Your task to perform on an android device: Open ESPN.com Image 0: 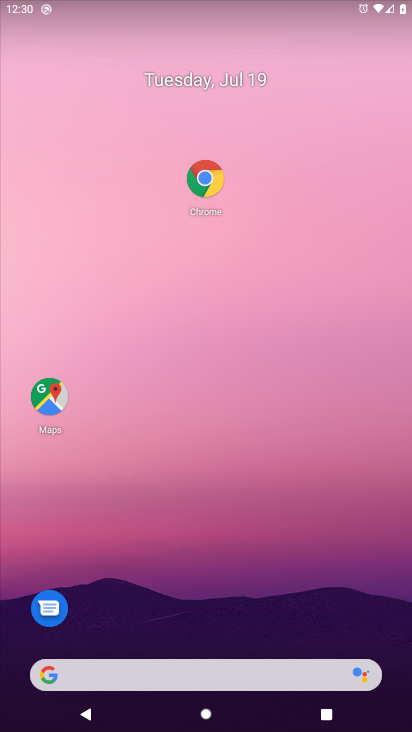
Step 0: click (114, 666)
Your task to perform on an android device: Open ESPN.com Image 1: 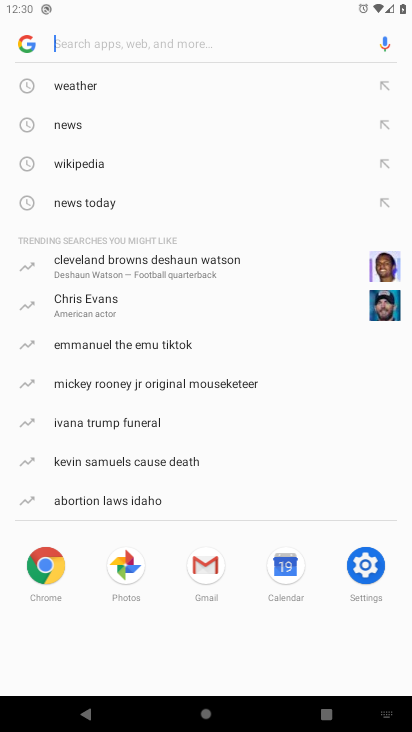
Step 1: type "ESPN.com"
Your task to perform on an android device: Open ESPN.com Image 2: 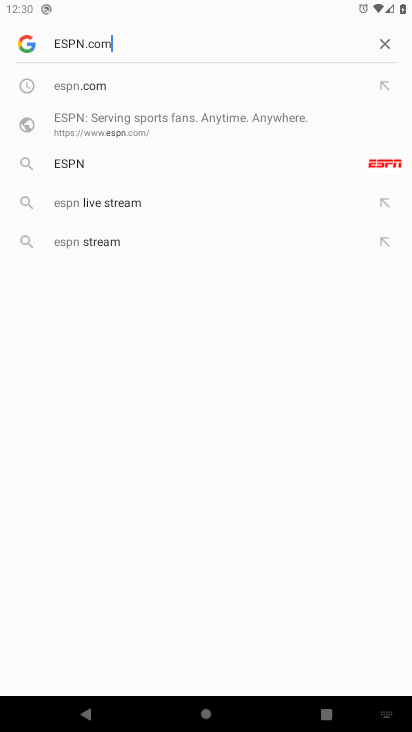
Step 2: type ""
Your task to perform on an android device: Open ESPN.com Image 3: 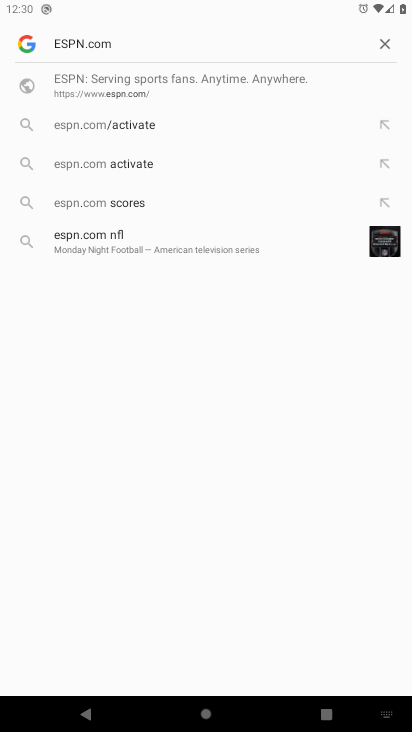
Step 3: click (56, 83)
Your task to perform on an android device: Open ESPN.com Image 4: 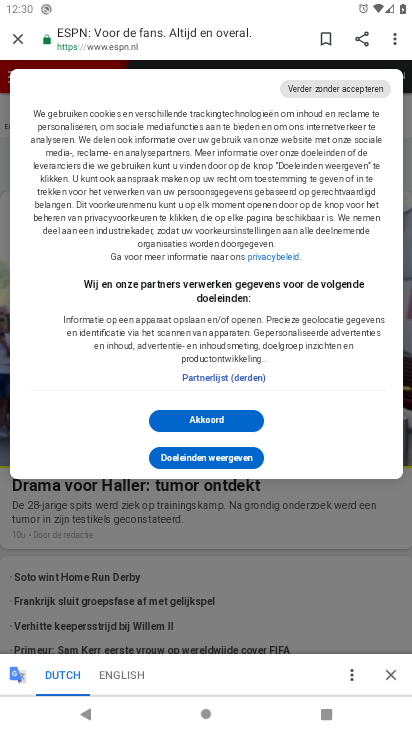
Step 4: task complete